Your task to perform on an android device: Open the calendar and show me this week's events Image 0: 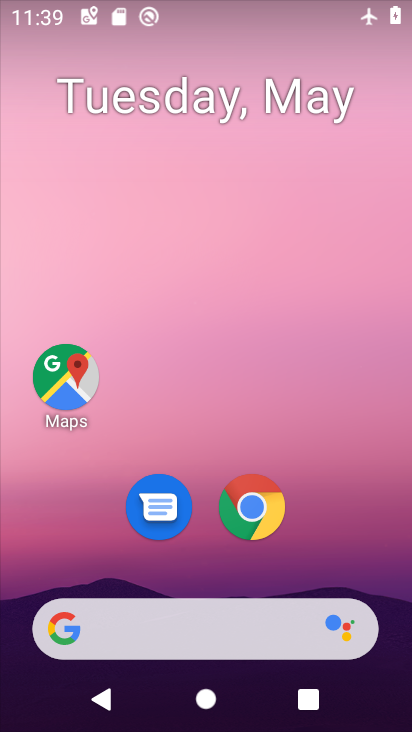
Step 0: drag from (279, 691) to (254, 180)
Your task to perform on an android device: Open the calendar and show me this week's events Image 1: 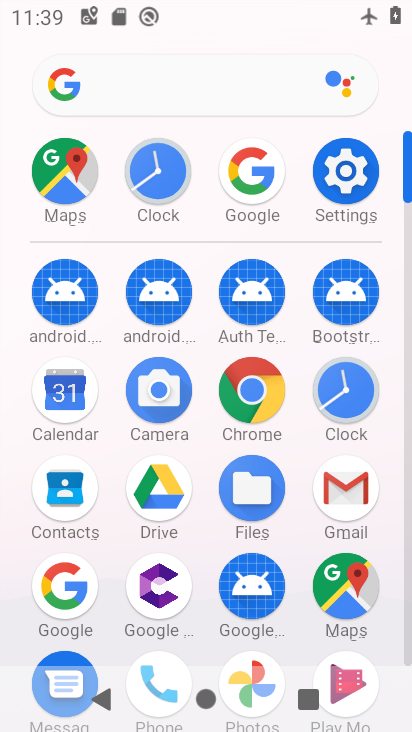
Step 1: click (55, 409)
Your task to perform on an android device: Open the calendar and show me this week's events Image 2: 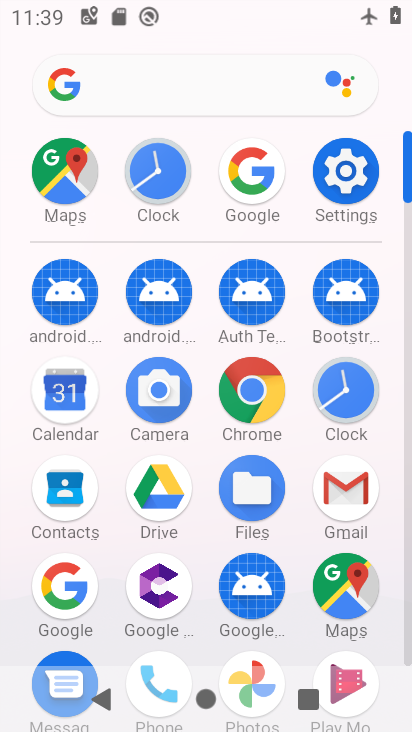
Step 2: click (59, 408)
Your task to perform on an android device: Open the calendar and show me this week's events Image 3: 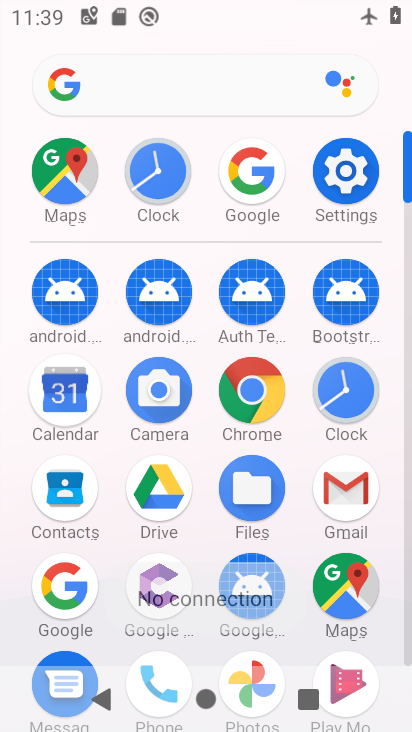
Step 3: click (60, 405)
Your task to perform on an android device: Open the calendar and show me this week's events Image 4: 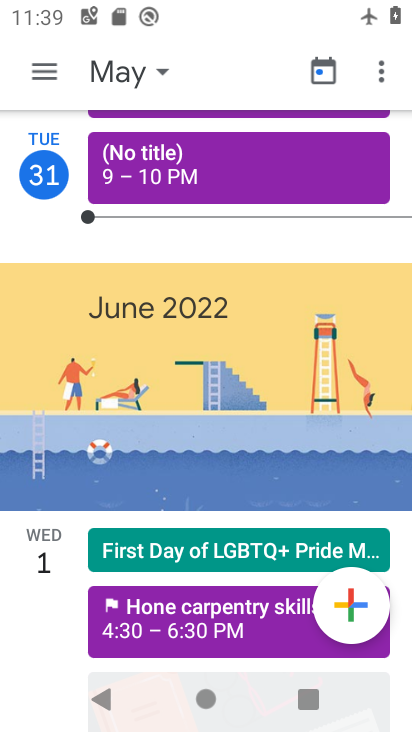
Step 4: click (165, 72)
Your task to perform on an android device: Open the calendar and show me this week's events Image 5: 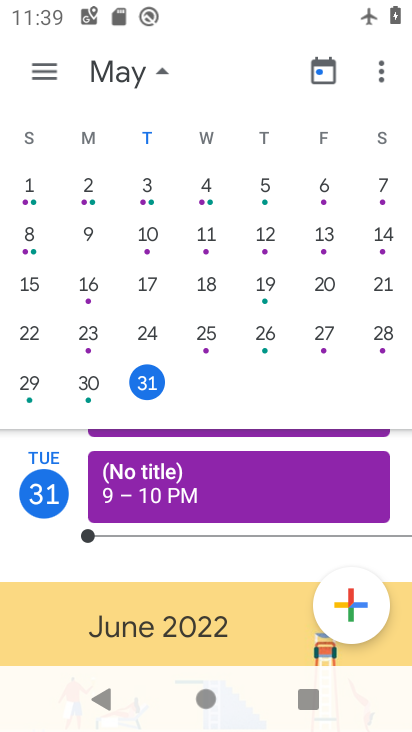
Step 5: drag from (331, 280) to (66, 429)
Your task to perform on an android device: Open the calendar and show me this week's events Image 6: 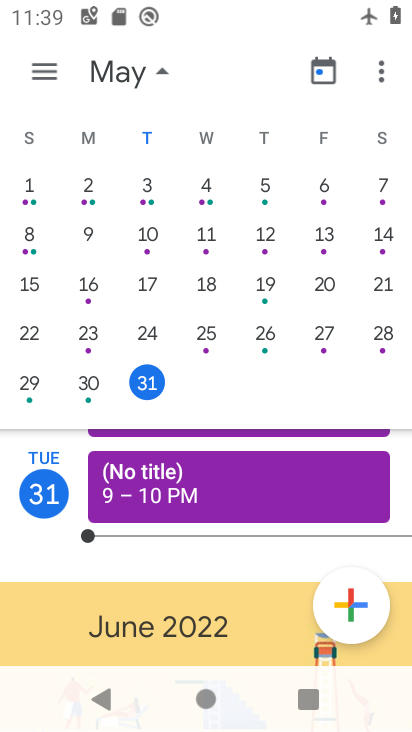
Step 6: drag from (237, 302) to (10, 419)
Your task to perform on an android device: Open the calendar and show me this week's events Image 7: 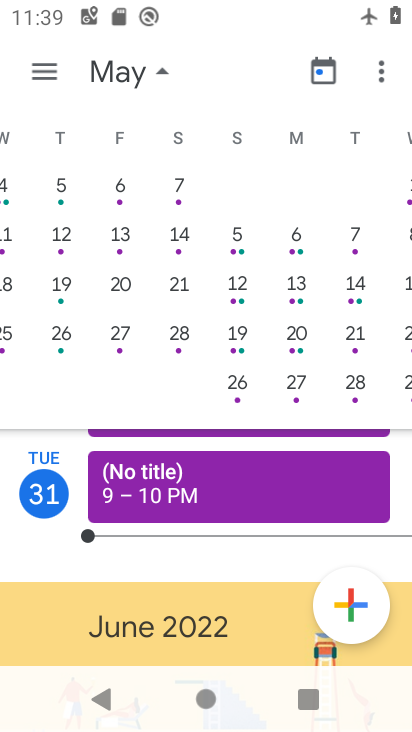
Step 7: drag from (238, 288) to (9, 368)
Your task to perform on an android device: Open the calendar and show me this week's events Image 8: 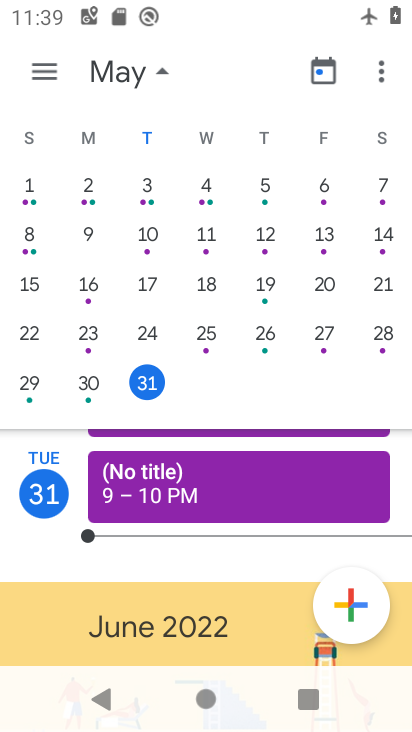
Step 8: drag from (311, 252) to (32, 349)
Your task to perform on an android device: Open the calendar and show me this week's events Image 9: 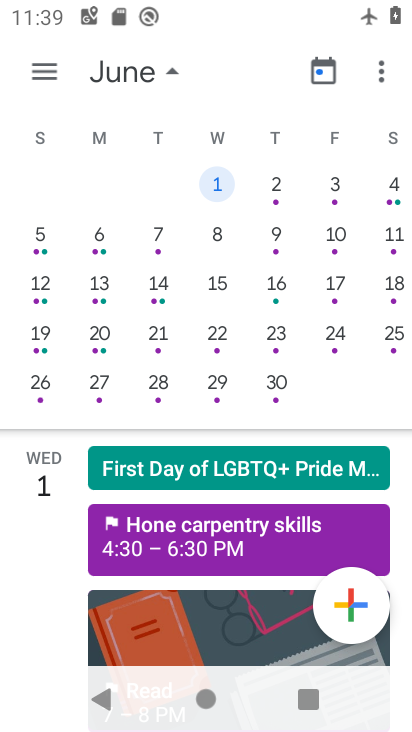
Step 9: drag from (184, 292) to (86, 320)
Your task to perform on an android device: Open the calendar and show me this week's events Image 10: 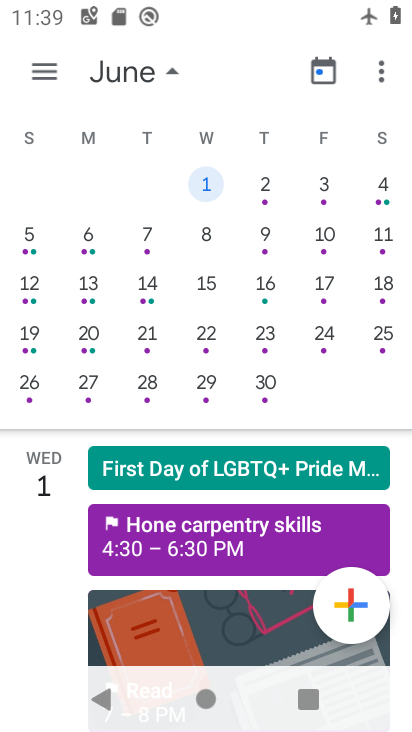
Step 10: click (375, 184)
Your task to perform on an android device: Open the calendar and show me this week's events Image 11: 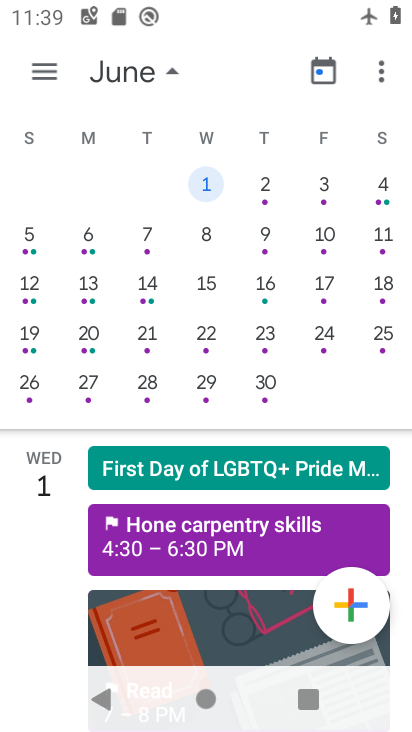
Step 11: click (376, 181)
Your task to perform on an android device: Open the calendar and show me this week's events Image 12: 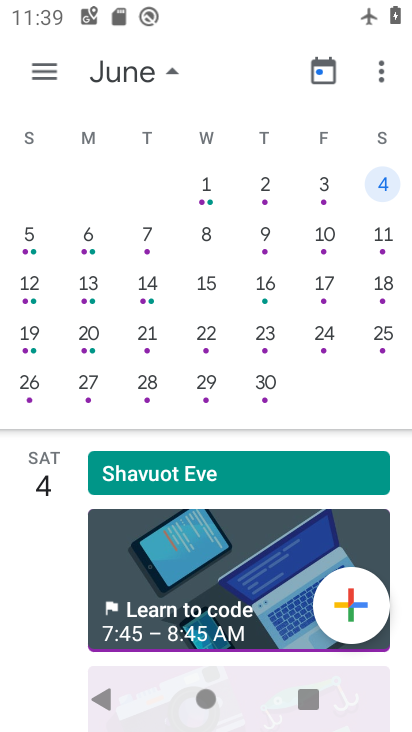
Step 12: click (376, 180)
Your task to perform on an android device: Open the calendar and show me this week's events Image 13: 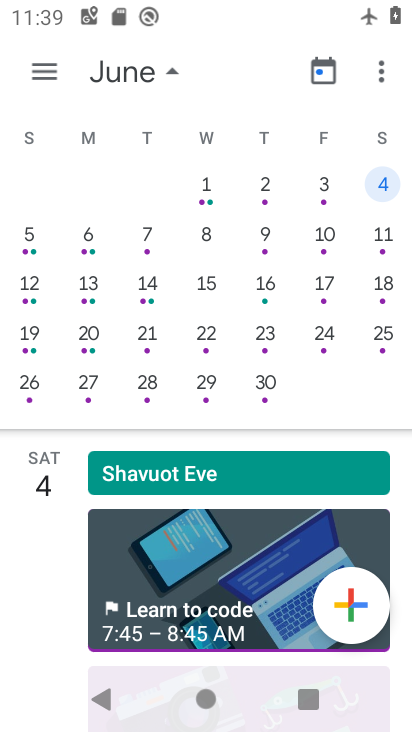
Step 13: click (265, 547)
Your task to perform on an android device: Open the calendar and show me this week's events Image 14: 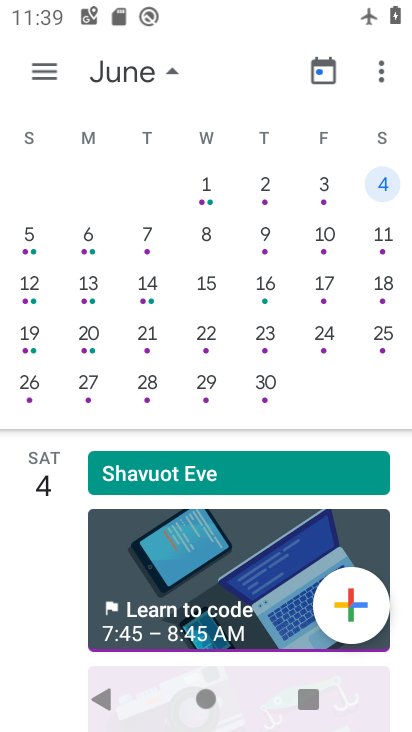
Step 14: task complete